Your task to perform on an android device: turn off wifi Image 0: 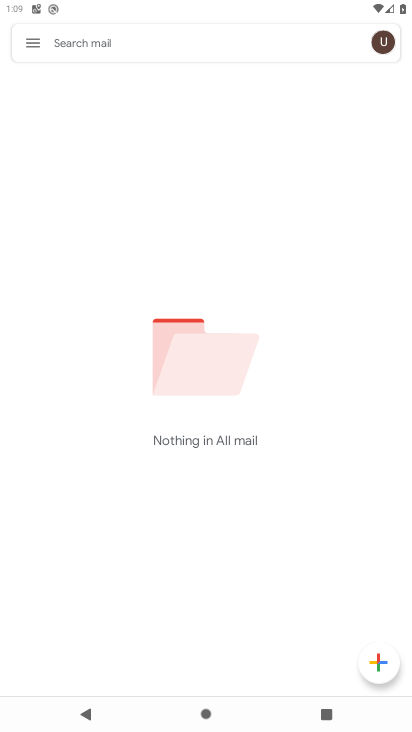
Step 0: press home button
Your task to perform on an android device: turn off wifi Image 1: 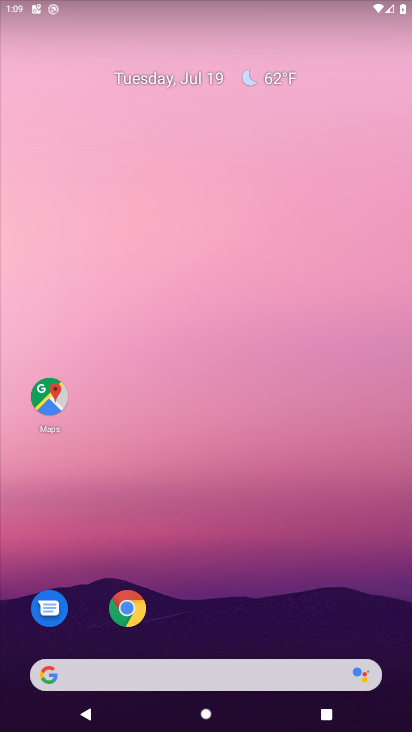
Step 1: drag from (227, 630) to (235, 41)
Your task to perform on an android device: turn off wifi Image 2: 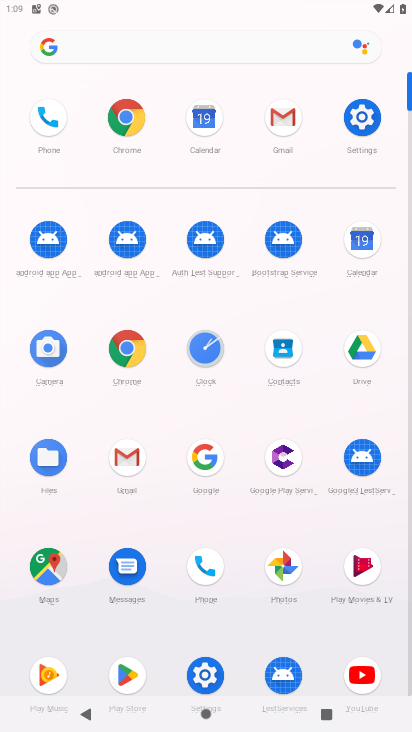
Step 2: drag from (215, 4) to (231, 545)
Your task to perform on an android device: turn off wifi Image 3: 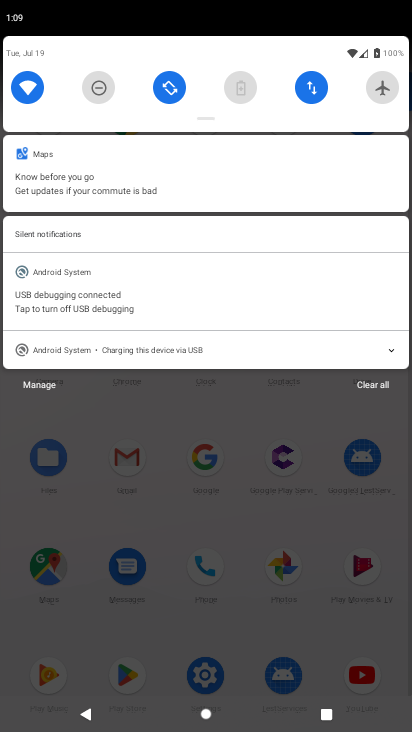
Step 3: click (30, 87)
Your task to perform on an android device: turn off wifi Image 4: 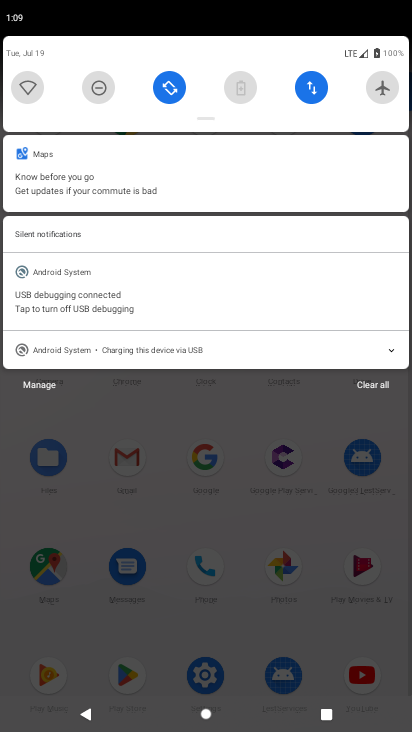
Step 4: task complete